Your task to perform on an android device: Open calendar and show me the first week of next month Image 0: 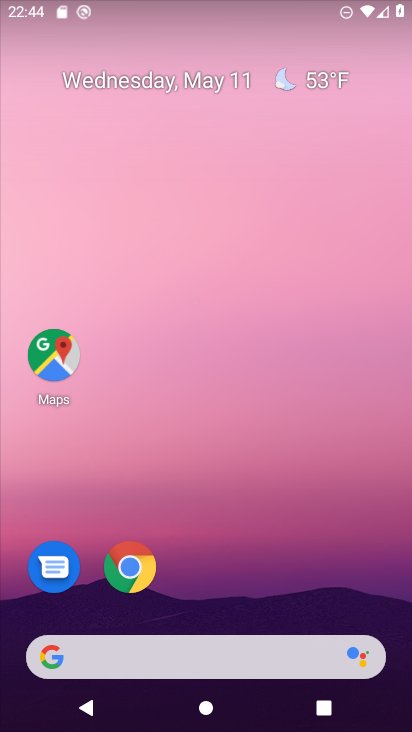
Step 0: drag from (233, 662) to (284, 28)
Your task to perform on an android device: Open calendar and show me the first week of next month Image 1: 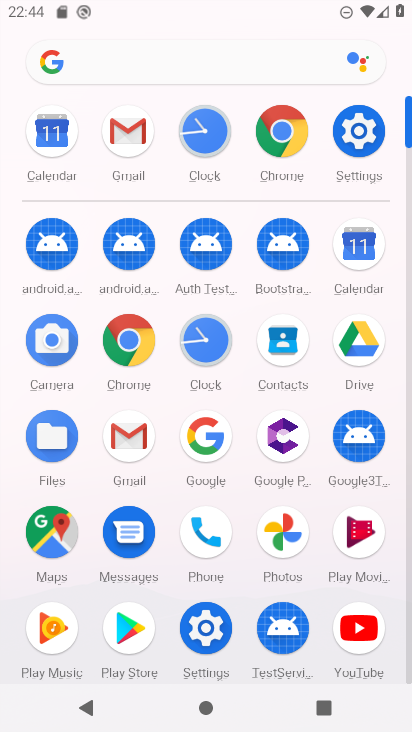
Step 1: click (339, 252)
Your task to perform on an android device: Open calendar and show me the first week of next month Image 2: 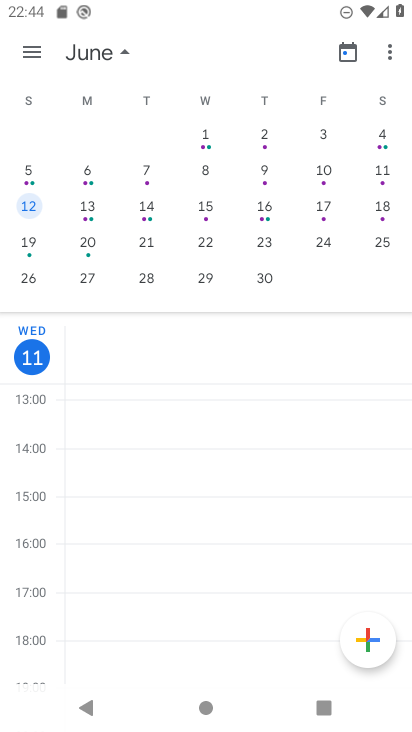
Step 2: click (209, 140)
Your task to perform on an android device: Open calendar and show me the first week of next month Image 3: 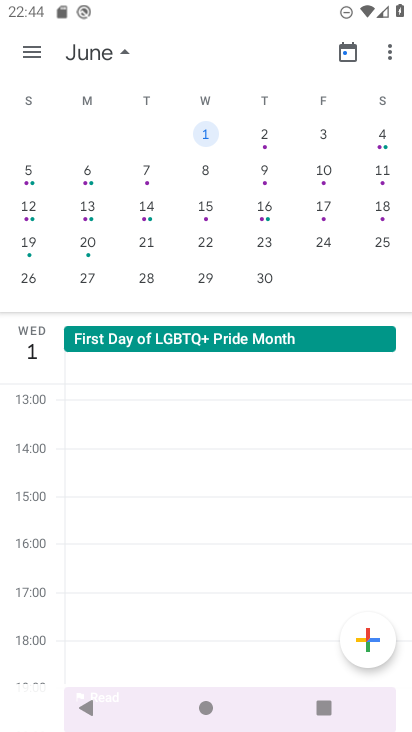
Step 3: task complete